Your task to perform on an android device: move an email to a new category in the gmail app Image 0: 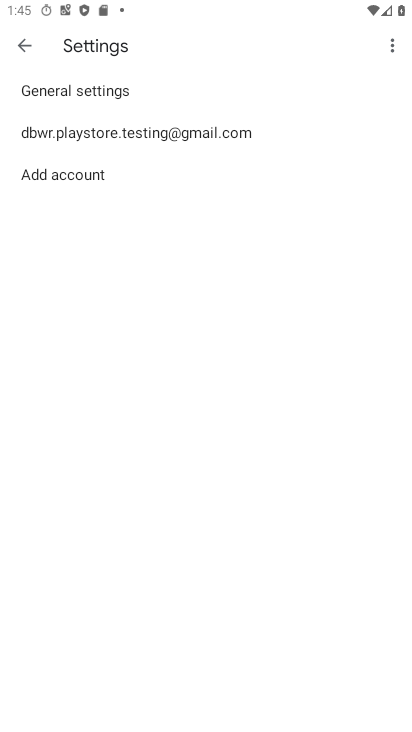
Step 0: press home button
Your task to perform on an android device: move an email to a new category in the gmail app Image 1: 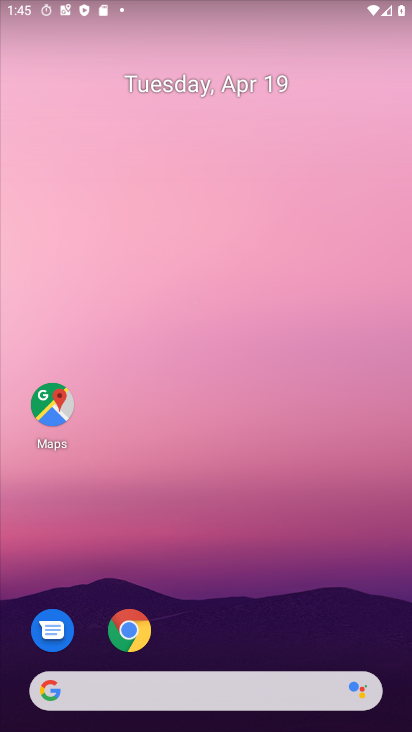
Step 1: drag from (228, 567) to (204, 99)
Your task to perform on an android device: move an email to a new category in the gmail app Image 2: 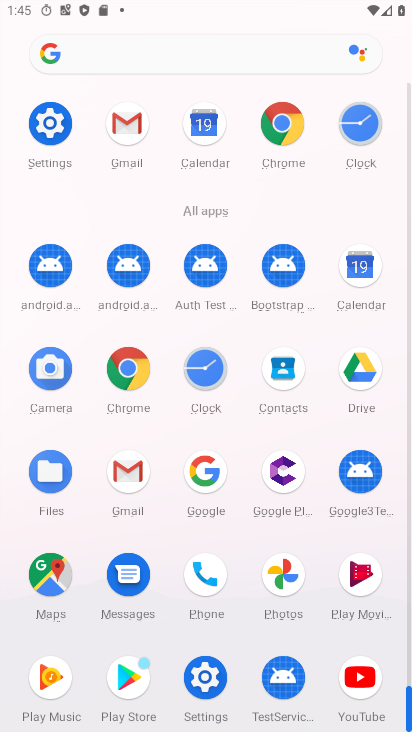
Step 2: click (357, 125)
Your task to perform on an android device: move an email to a new category in the gmail app Image 3: 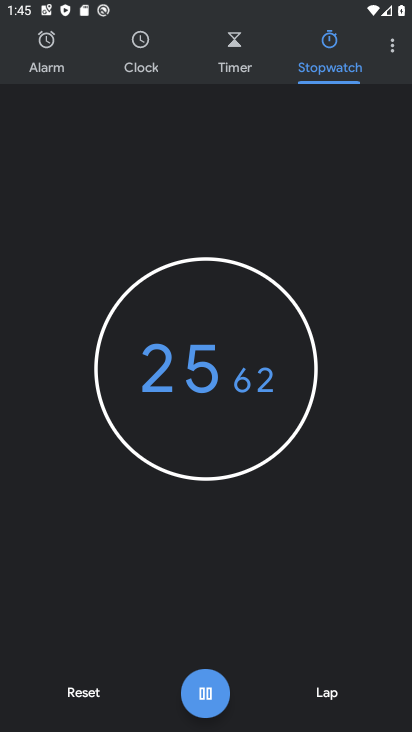
Step 3: click (354, 120)
Your task to perform on an android device: move an email to a new category in the gmail app Image 4: 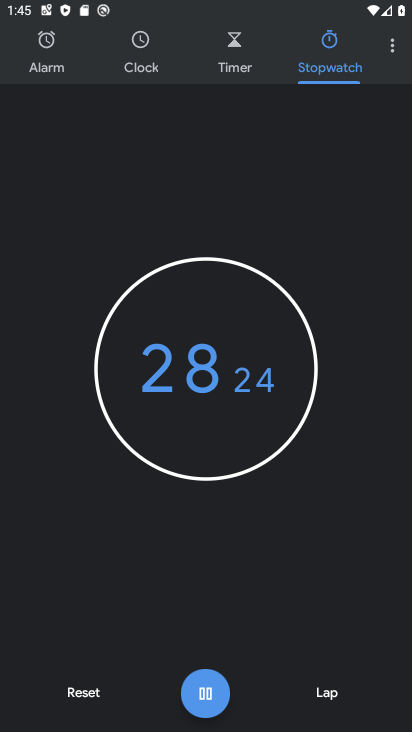
Step 4: task complete